Your task to perform on an android device: Is it going to rain this weekend? Image 0: 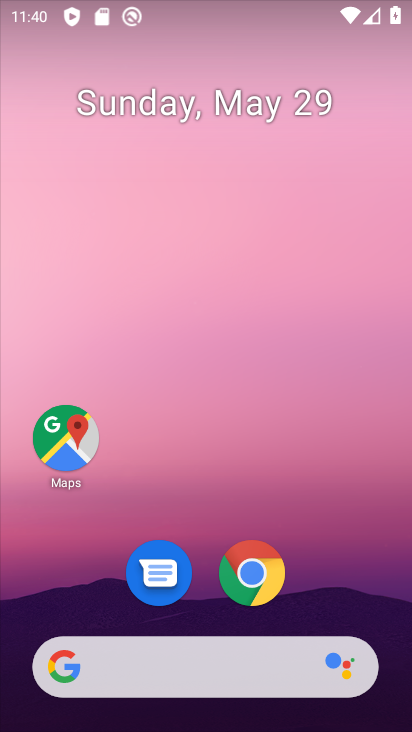
Step 0: click (346, 467)
Your task to perform on an android device: Is it going to rain this weekend? Image 1: 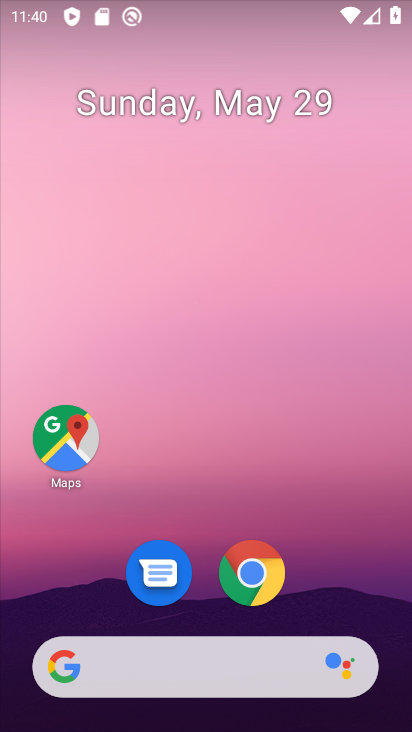
Step 1: drag from (274, 671) to (318, 294)
Your task to perform on an android device: Is it going to rain this weekend? Image 2: 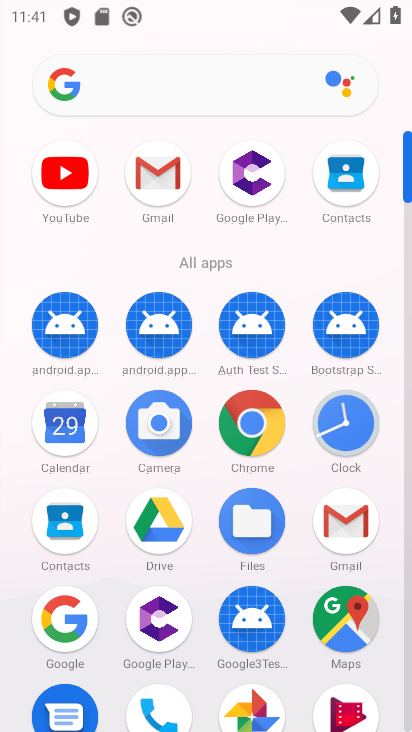
Step 2: click (68, 608)
Your task to perform on an android device: Is it going to rain this weekend? Image 3: 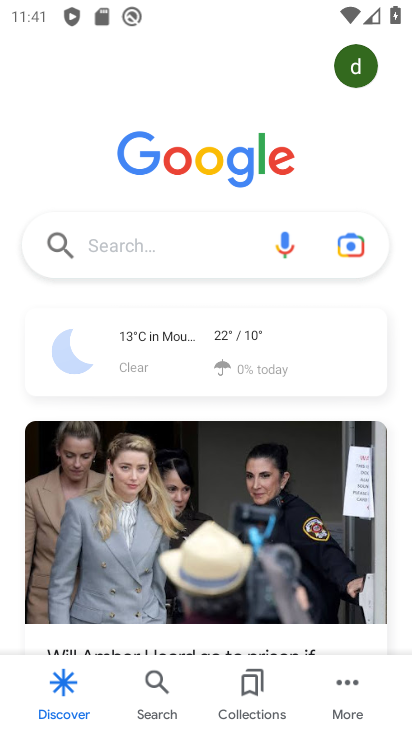
Step 3: click (99, 355)
Your task to perform on an android device: Is it going to rain this weekend? Image 4: 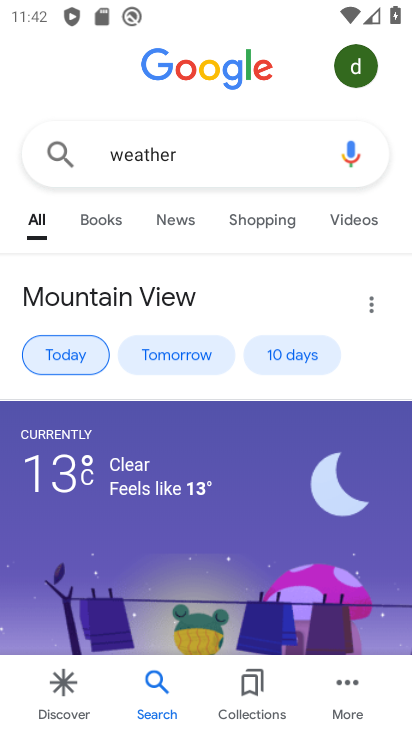
Step 4: click (294, 347)
Your task to perform on an android device: Is it going to rain this weekend? Image 5: 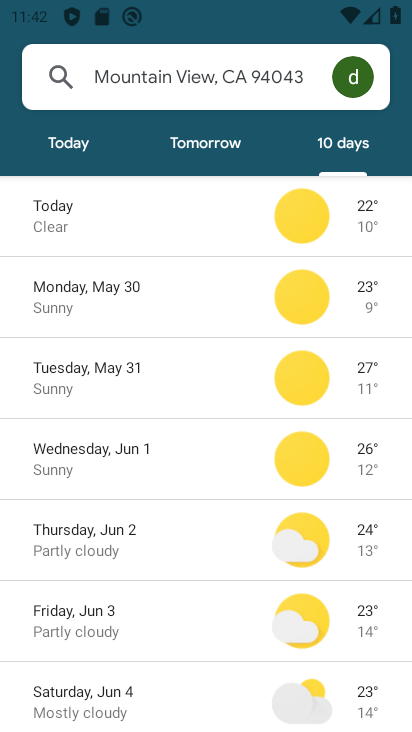
Step 5: task complete